Your task to perform on an android device: Where can I buy a nice beach umbrella? Image 0: 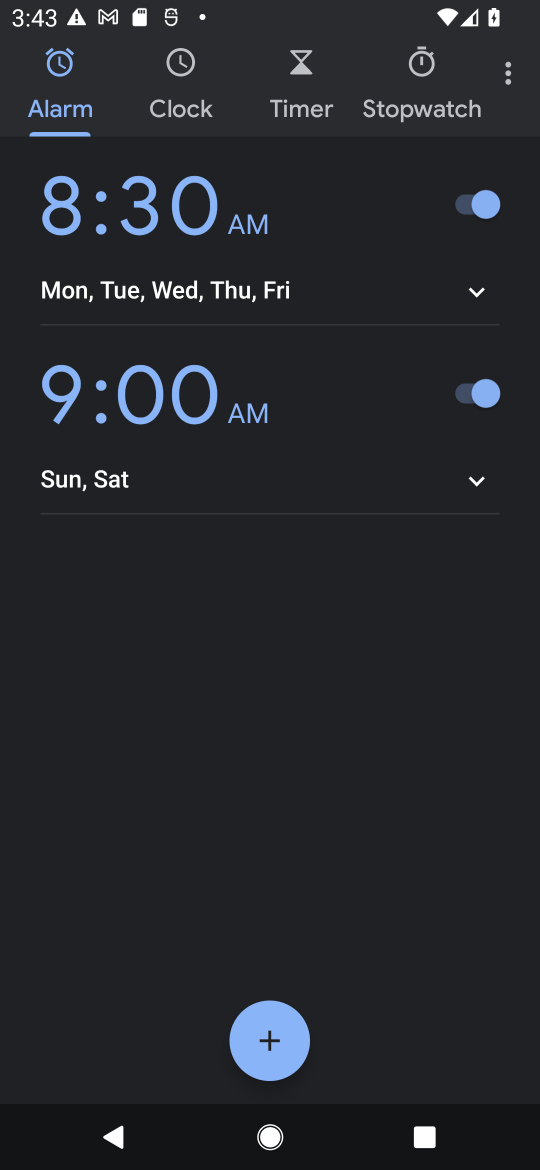
Step 0: press home button
Your task to perform on an android device: Where can I buy a nice beach umbrella? Image 1: 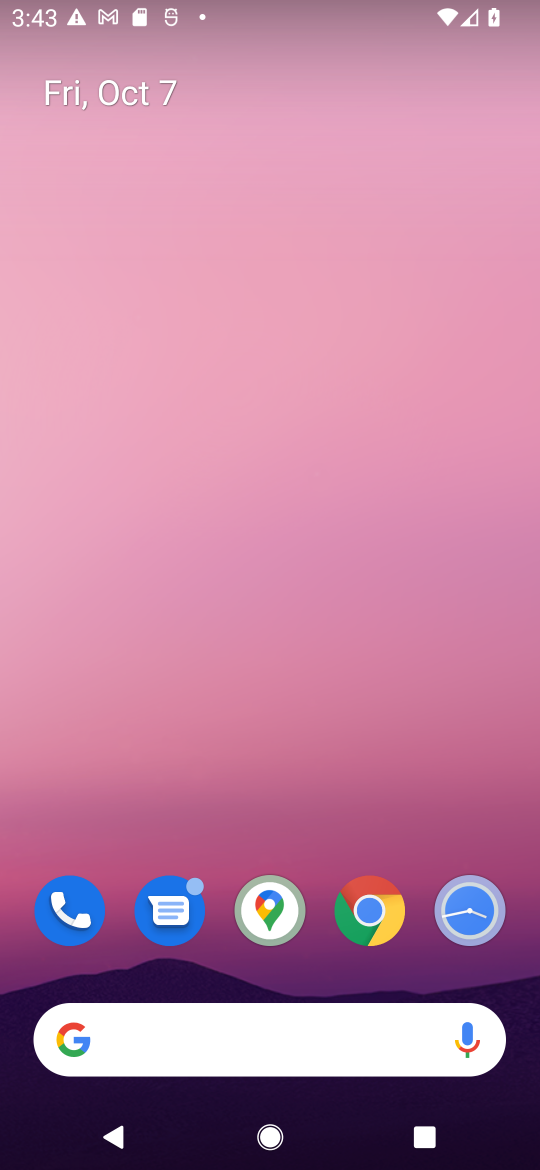
Step 1: click (230, 1050)
Your task to perform on an android device: Where can I buy a nice beach umbrella? Image 2: 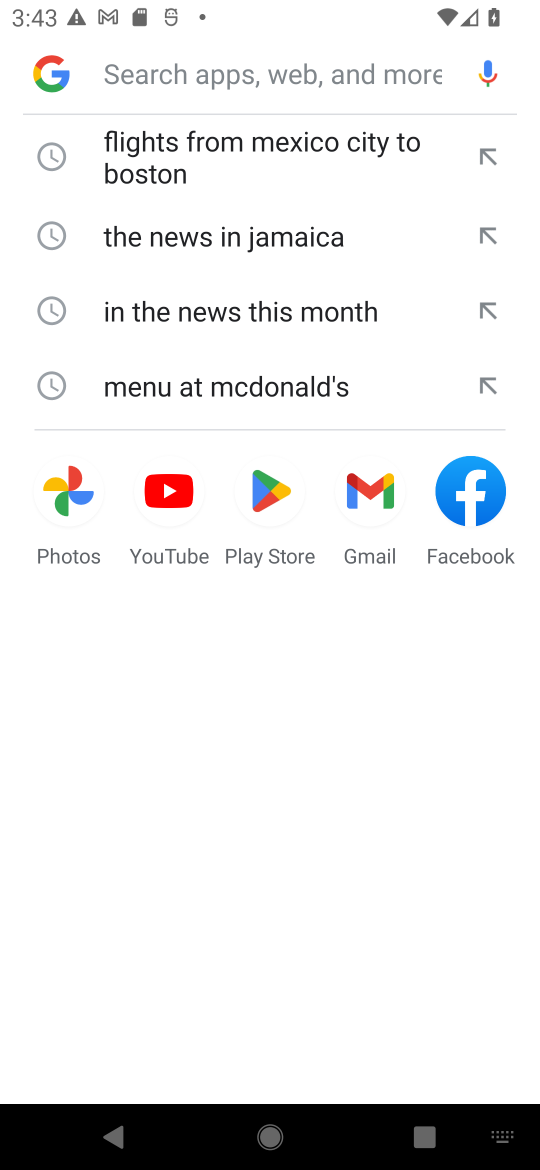
Step 2: type "Where can I buy a nice beach umbrella"
Your task to perform on an android device: Where can I buy a nice beach umbrella? Image 3: 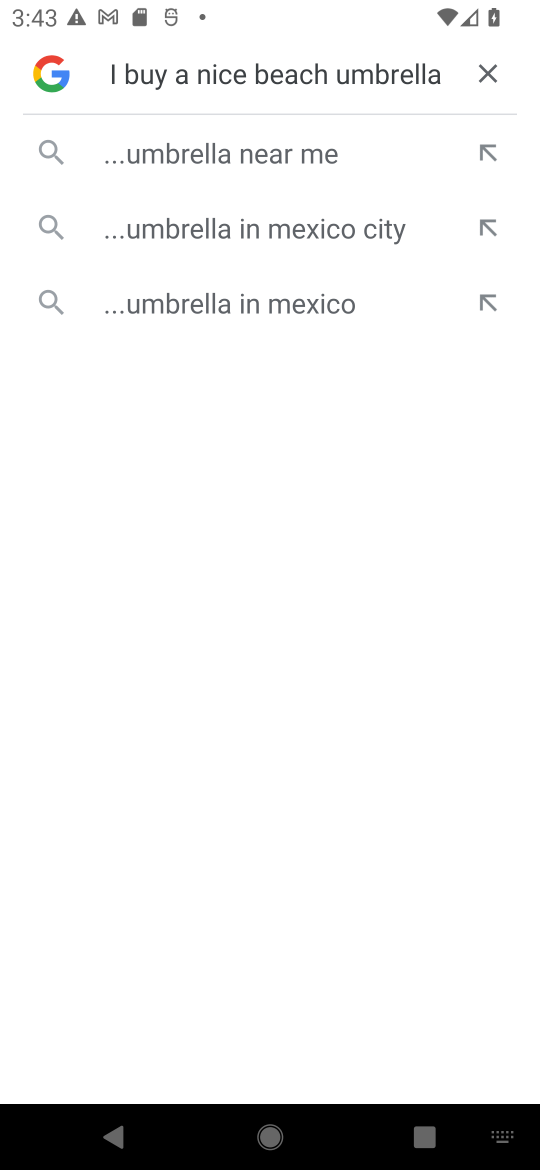
Step 3: click (253, 155)
Your task to perform on an android device: Where can I buy a nice beach umbrella? Image 4: 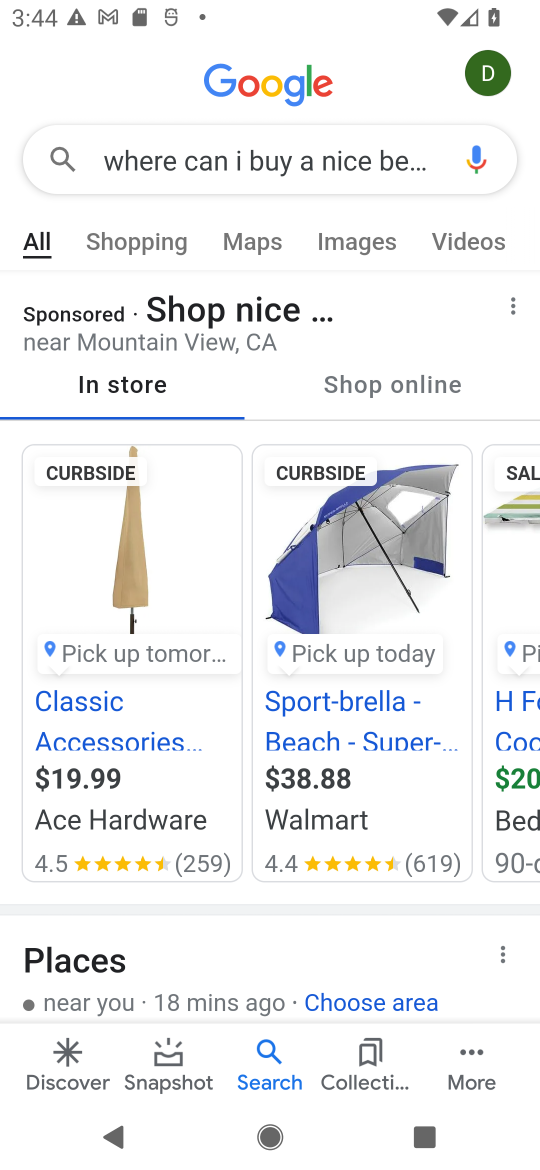
Step 4: task complete